Your task to perform on an android device: turn off data saver in the chrome app Image 0: 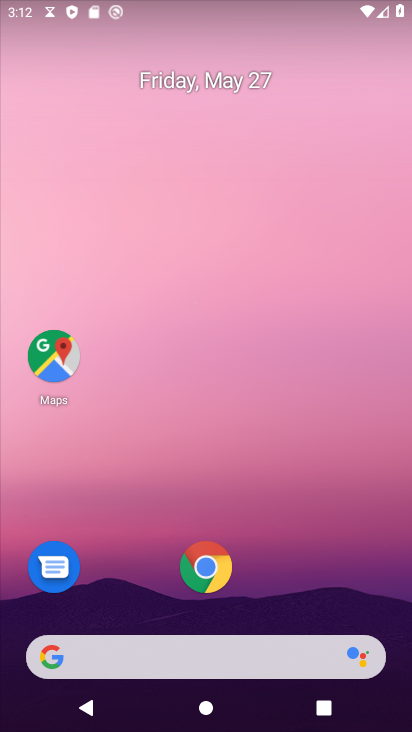
Step 0: click (223, 569)
Your task to perform on an android device: turn off data saver in the chrome app Image 1: 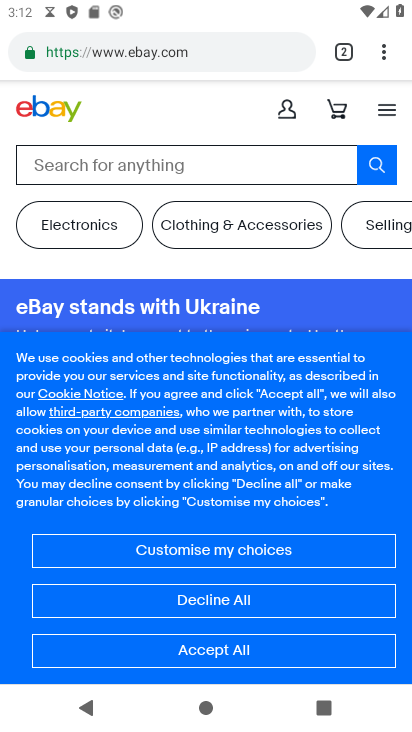
Step 1: drag from (381, 47) to (209, 589)
Your task to perform on an android device: turn off data saver in the chrome app Image 2: 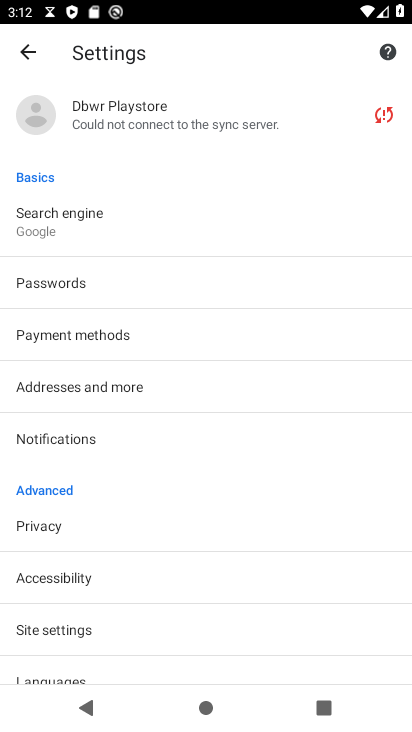
Step 2: drag from (157, 163) to (171, 122)
Your task to perform on an android device: turn off data saver in the chrome app Image 3: 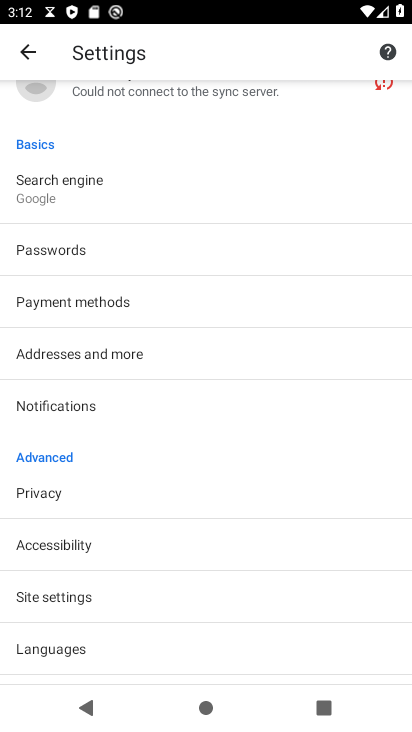
Step 3: drag from (146, 582) to (261, 162)
Your task to perform on an android device: turn off data saver in the chrome app Image 4: 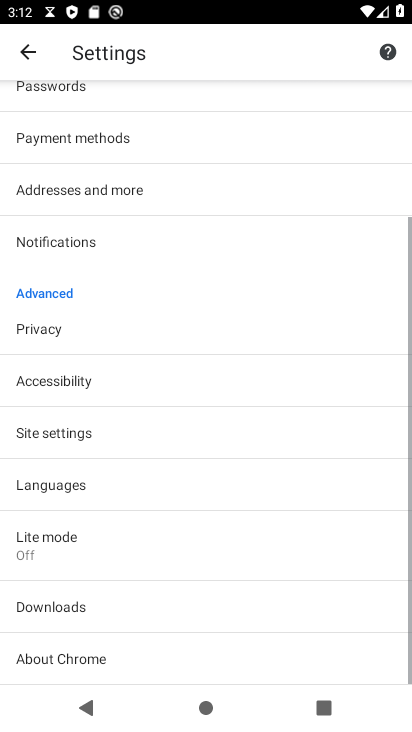
Step 4: click (43, 555)
Your task to perform on an android device: turn off data saver in the chrome app Image 5: 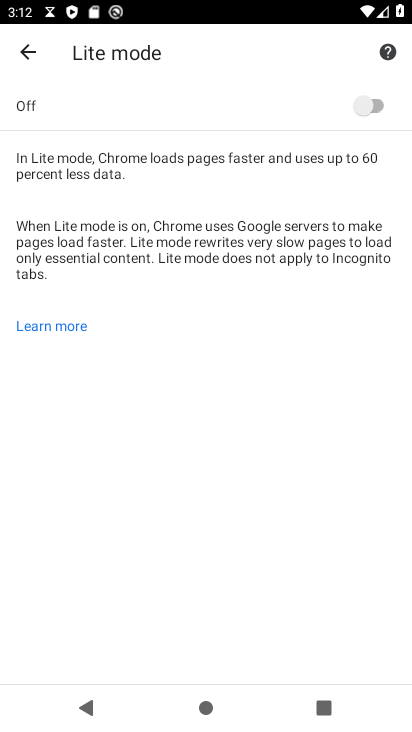
Step 5: task complete